Your task to perform on an android device: What is the news today? Image 0: 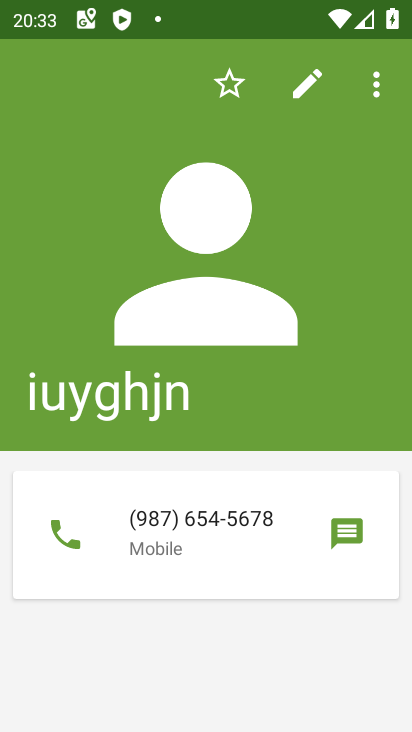
Step 0: press home button
Your task to perform on an android device: What is the news today? Image 1: 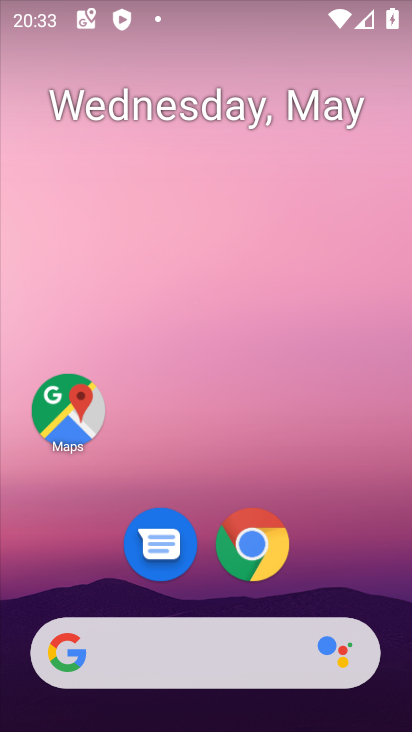
Step 1: click (183, 653)
Your task to perform on an android device: What is the news today? Image 2: 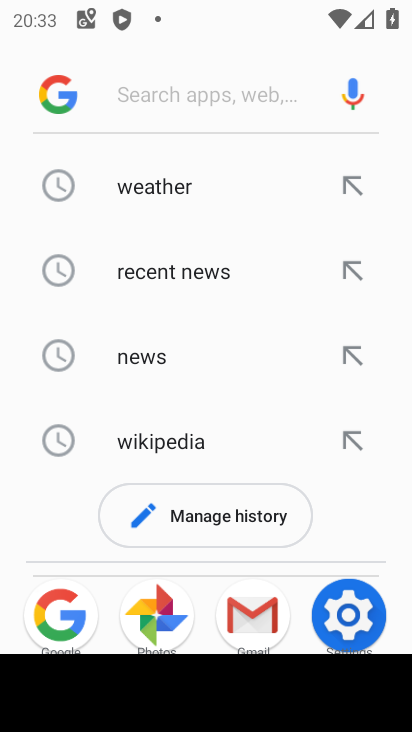
Step 2: click (156, 359)
Your task to perform on an android device: What is the news today? Image 3: 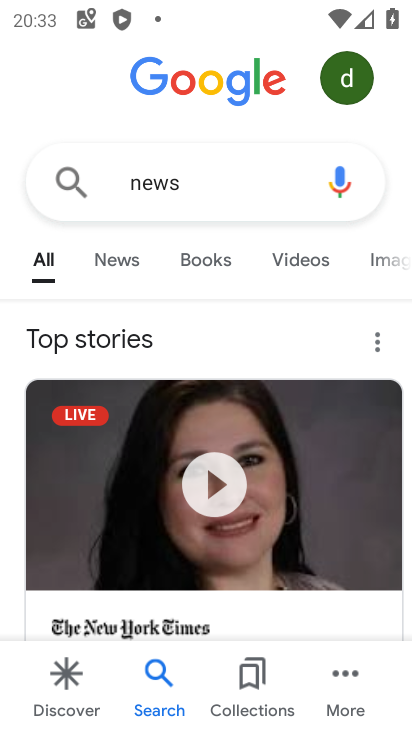
Step 3: click (120, 244)
Your task to perform on an android device: What is the news today? Image 4: 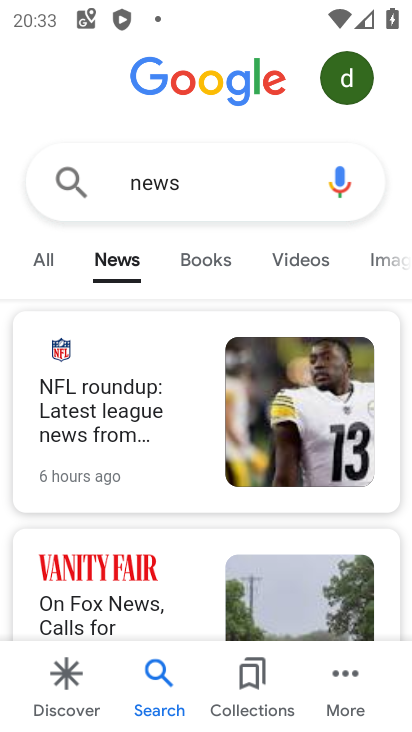
Step 4: task complete